Your task to perform on an android device: Open sound settings Image 0: 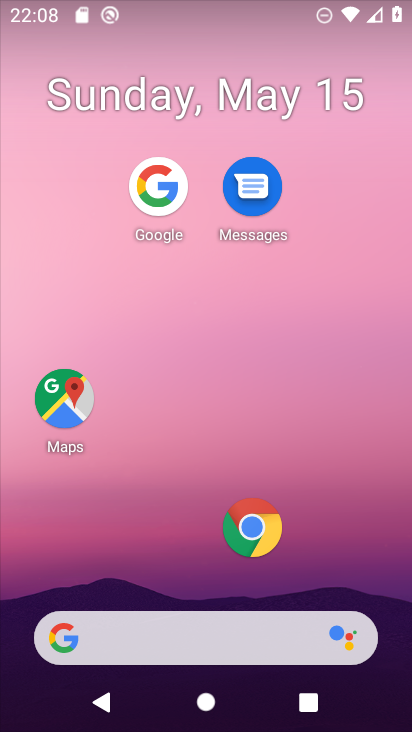
Step 0: drag from (144, 634) to (318, 63)
Your task to perform on an android device: Open sound settings Image 1: 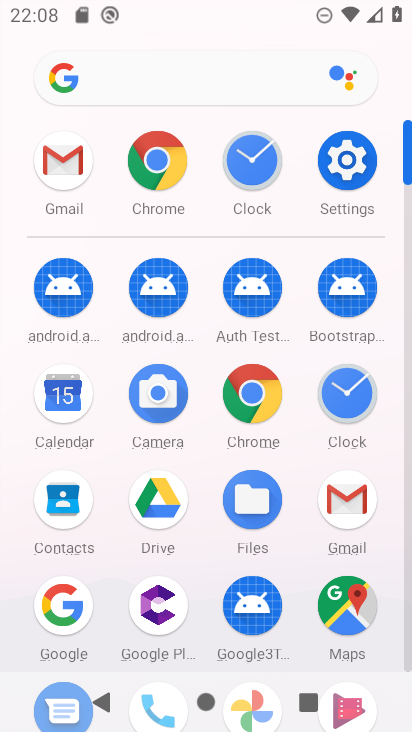
Step 1: click (351, 176)
Your task to perform on an android device: Open sound settings Image 2: 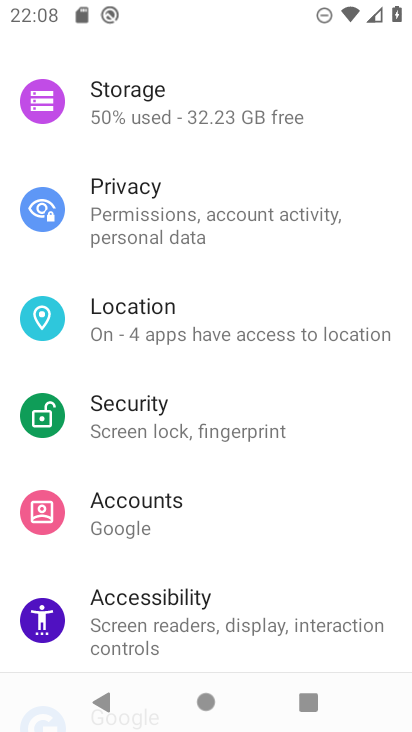
Step 2: drag from (320, 151) to (212, 550)
Your task to perform on an android device: Open sound settings Image 3: 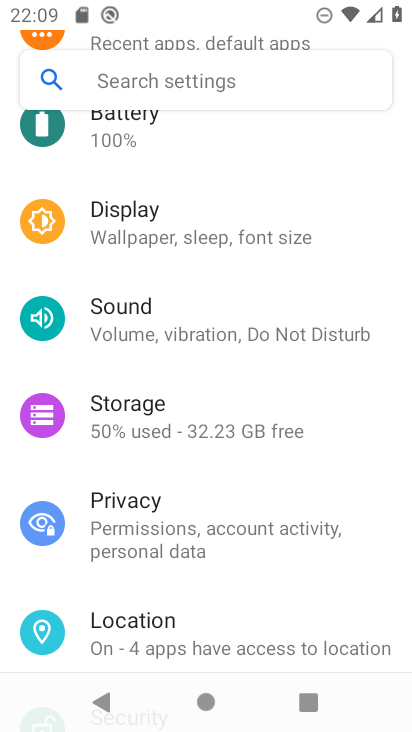
Step 3: click (137, 327)
Your task to perform on an android device: Open sound settings Image 4: 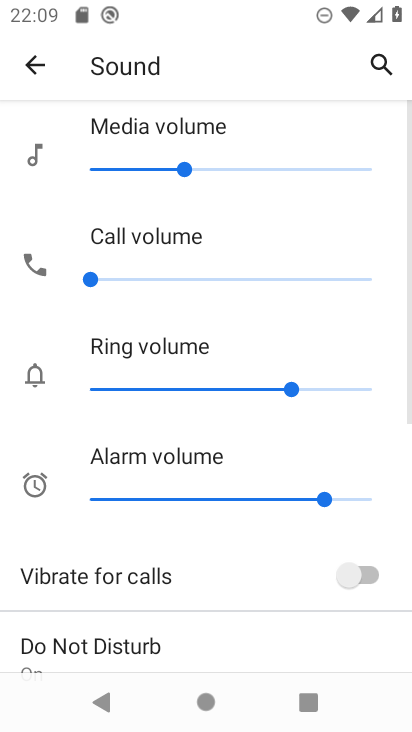
Step 4: task complete